Your task to perform on an android device: Go to settings Image 0: 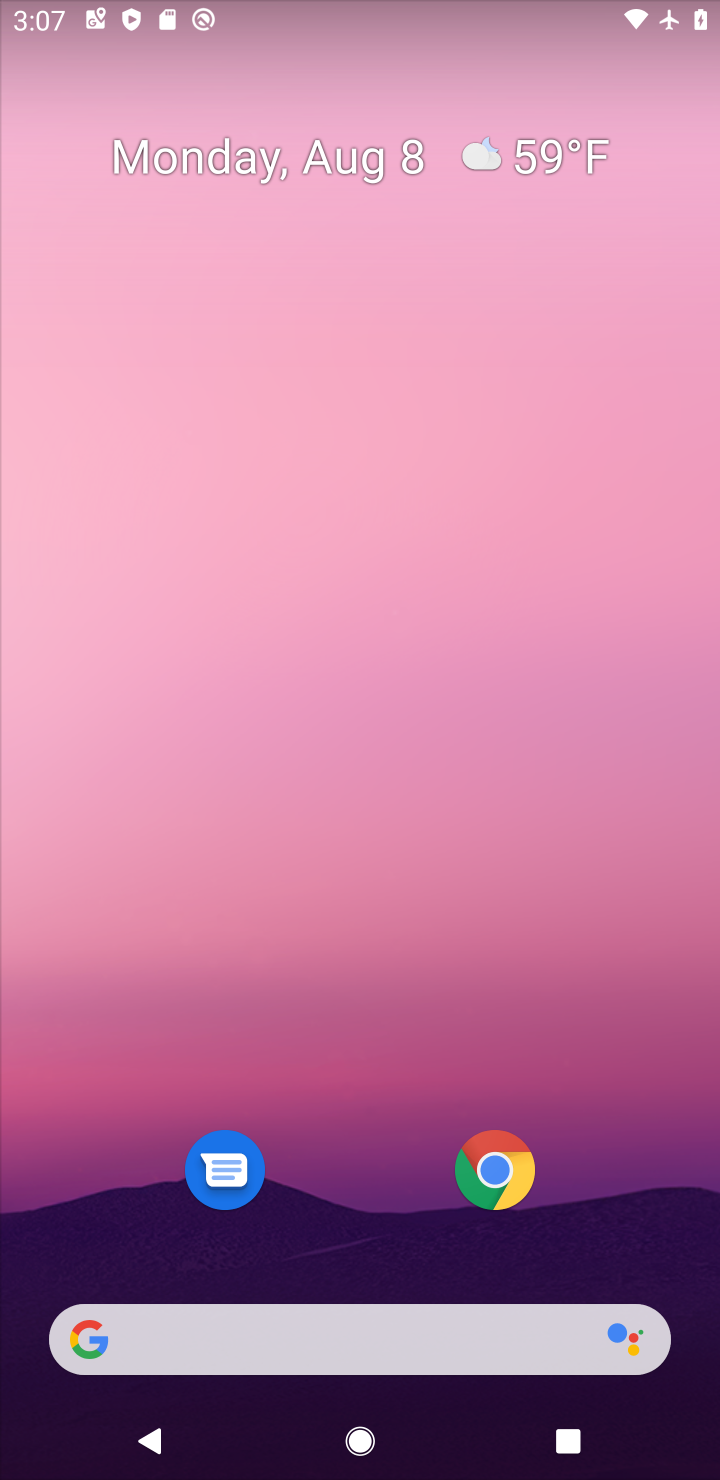
Step 0: drag from (392, 1174) to (394, 176)
Your task to perform on an android device: Go to settings Image 1: 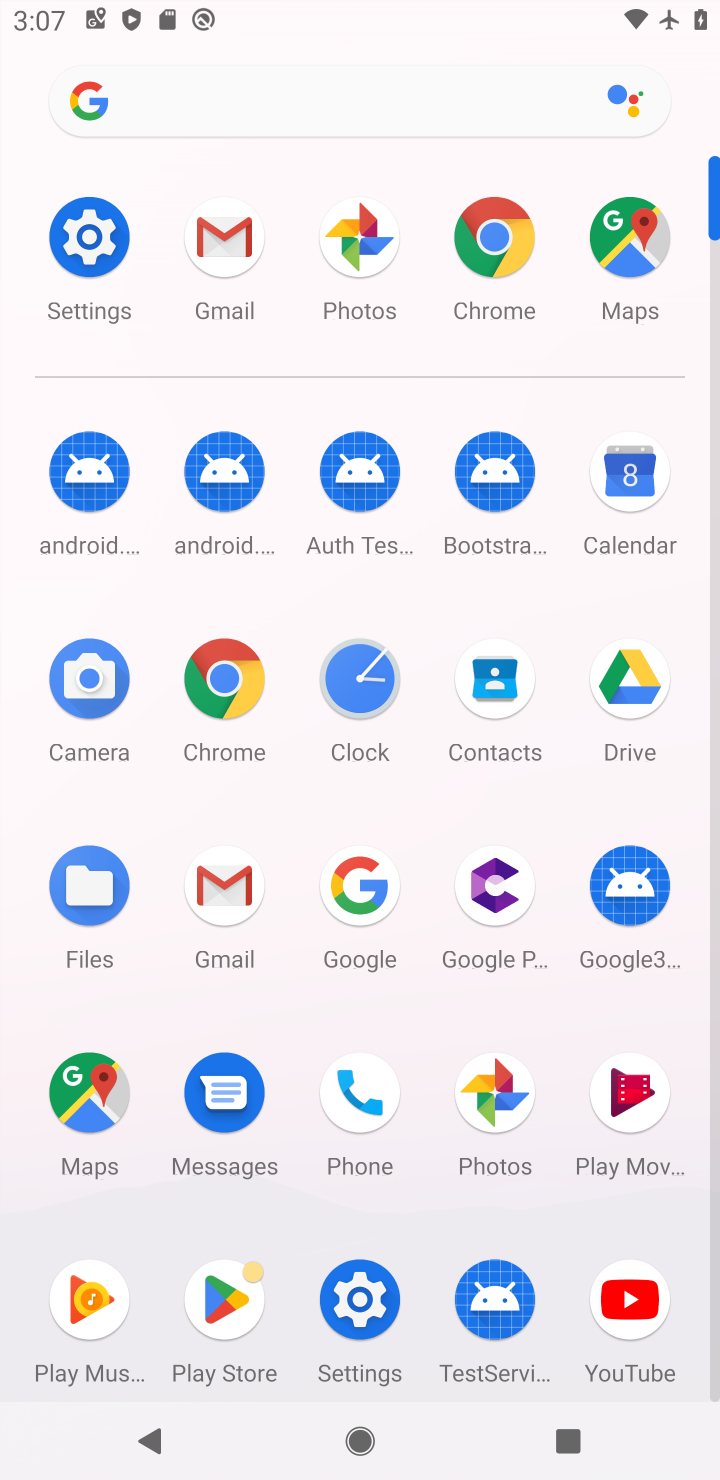
Step 1: click (84, 262)
Your task to perform on an android device: Go to settings Image 2: 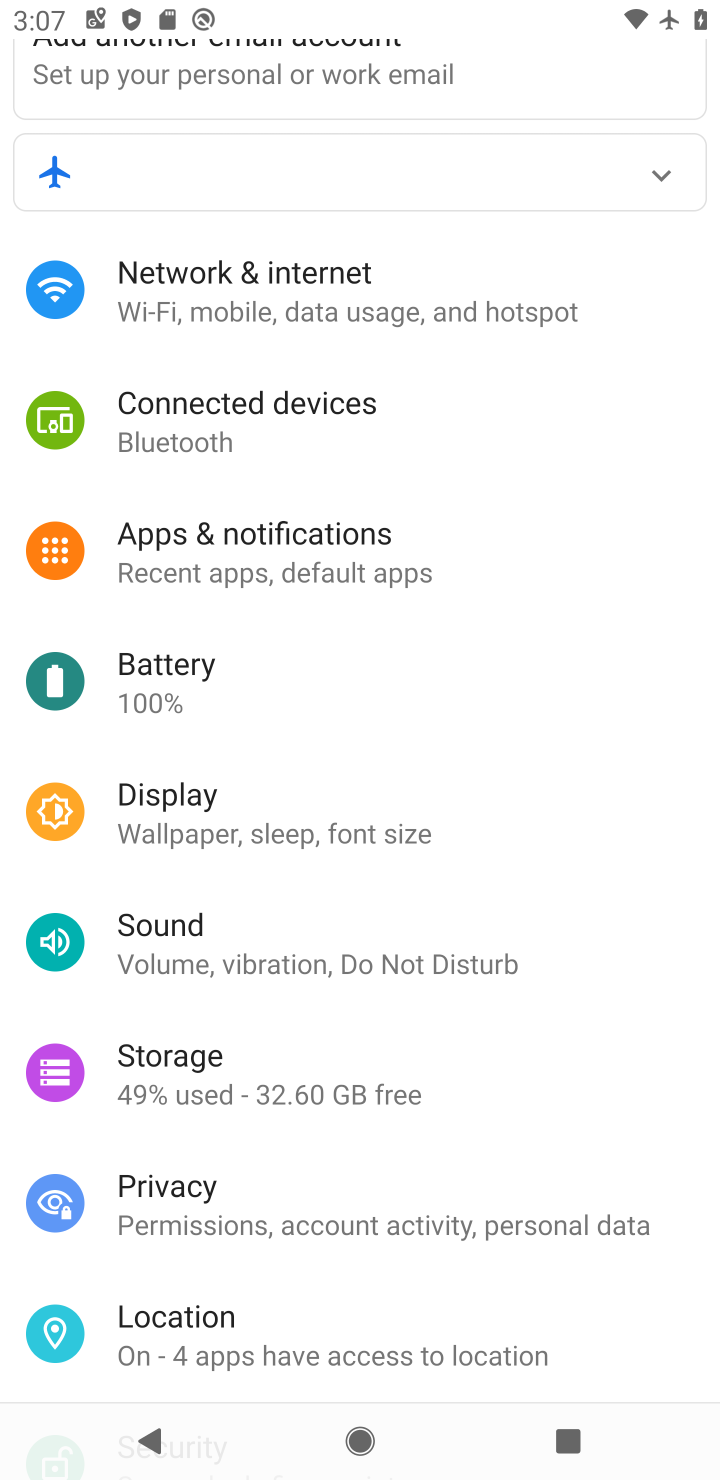
Step 2: task complete